Your task to perform on an android device: Go to location settings Image 0: 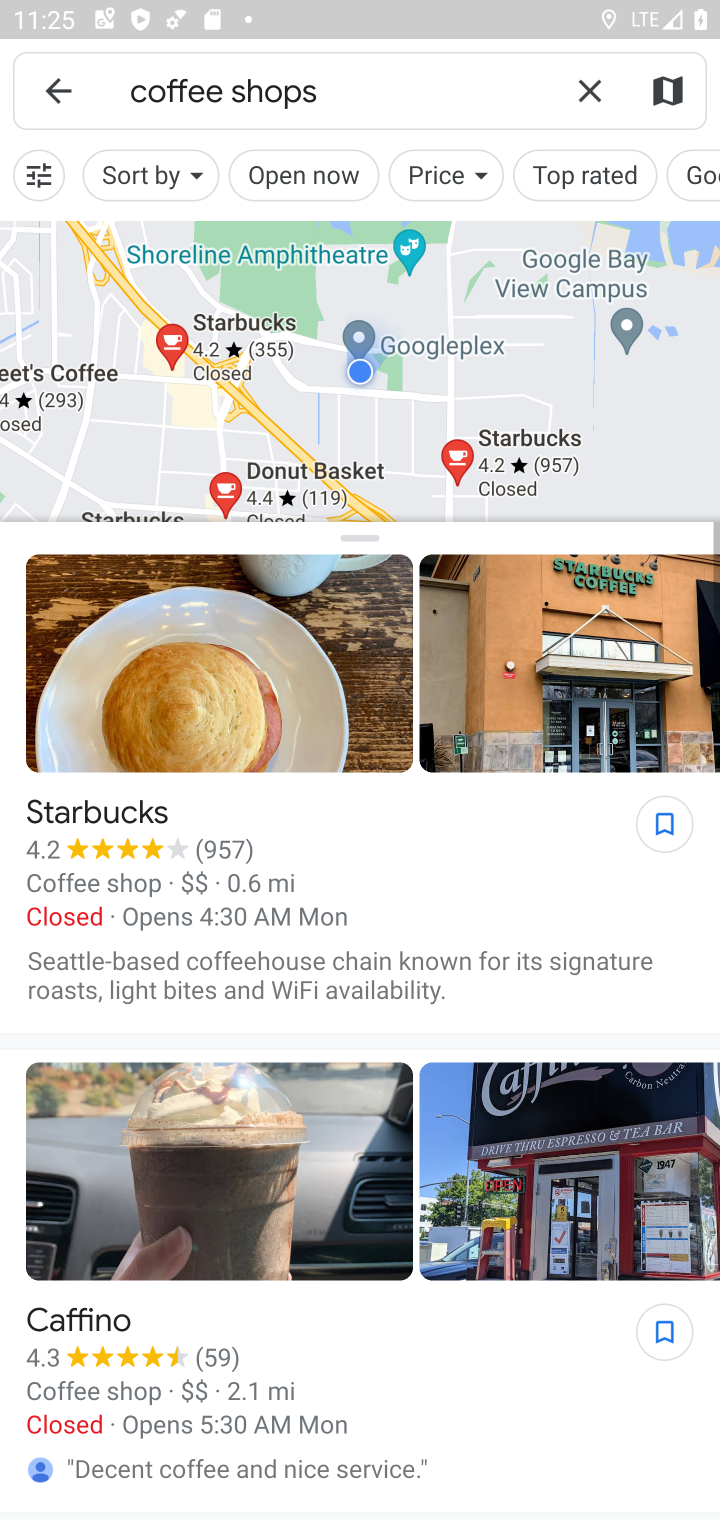
Step 0: press back button
Your task to perform on an android device: Go to location settings Image 1: 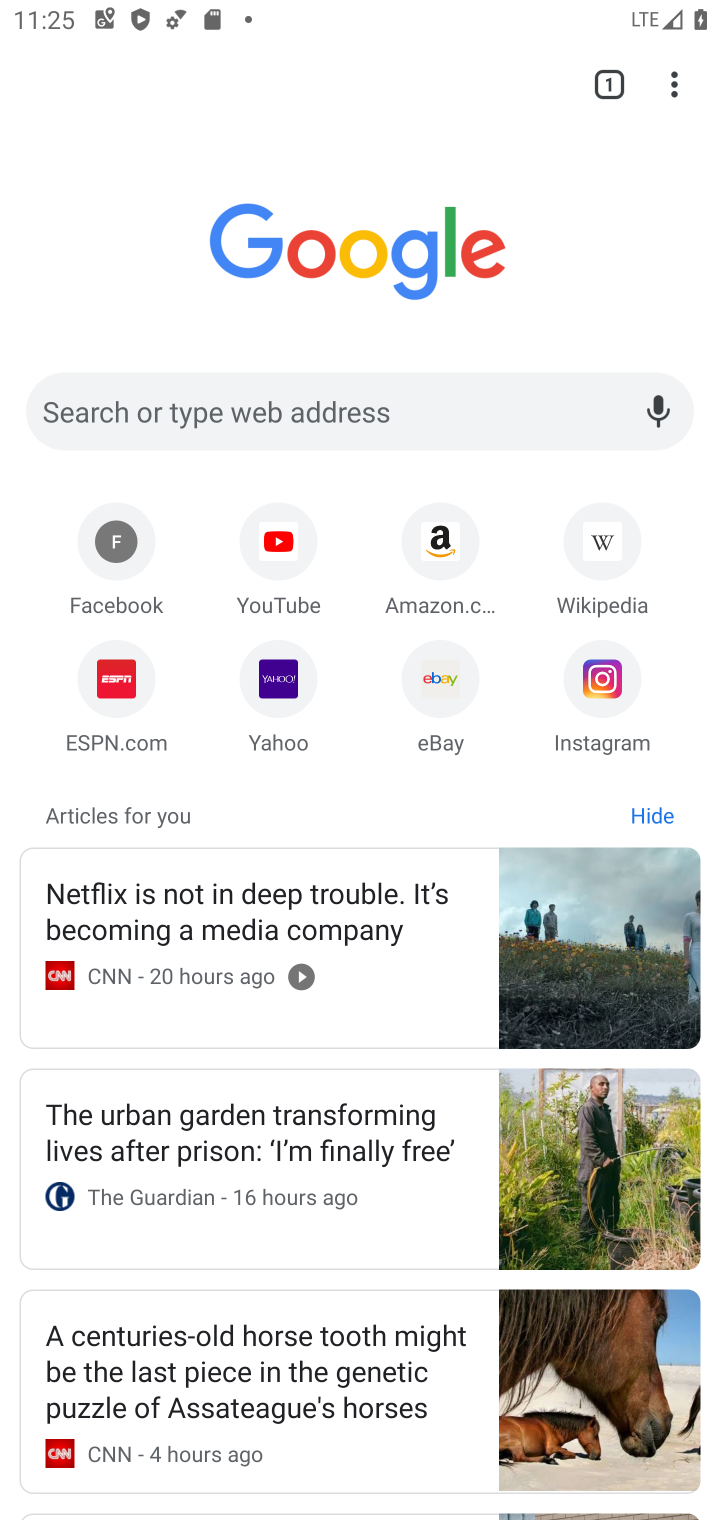
Step 1: press back button
Your task to perform on an android device: Go to location settings Image 2: 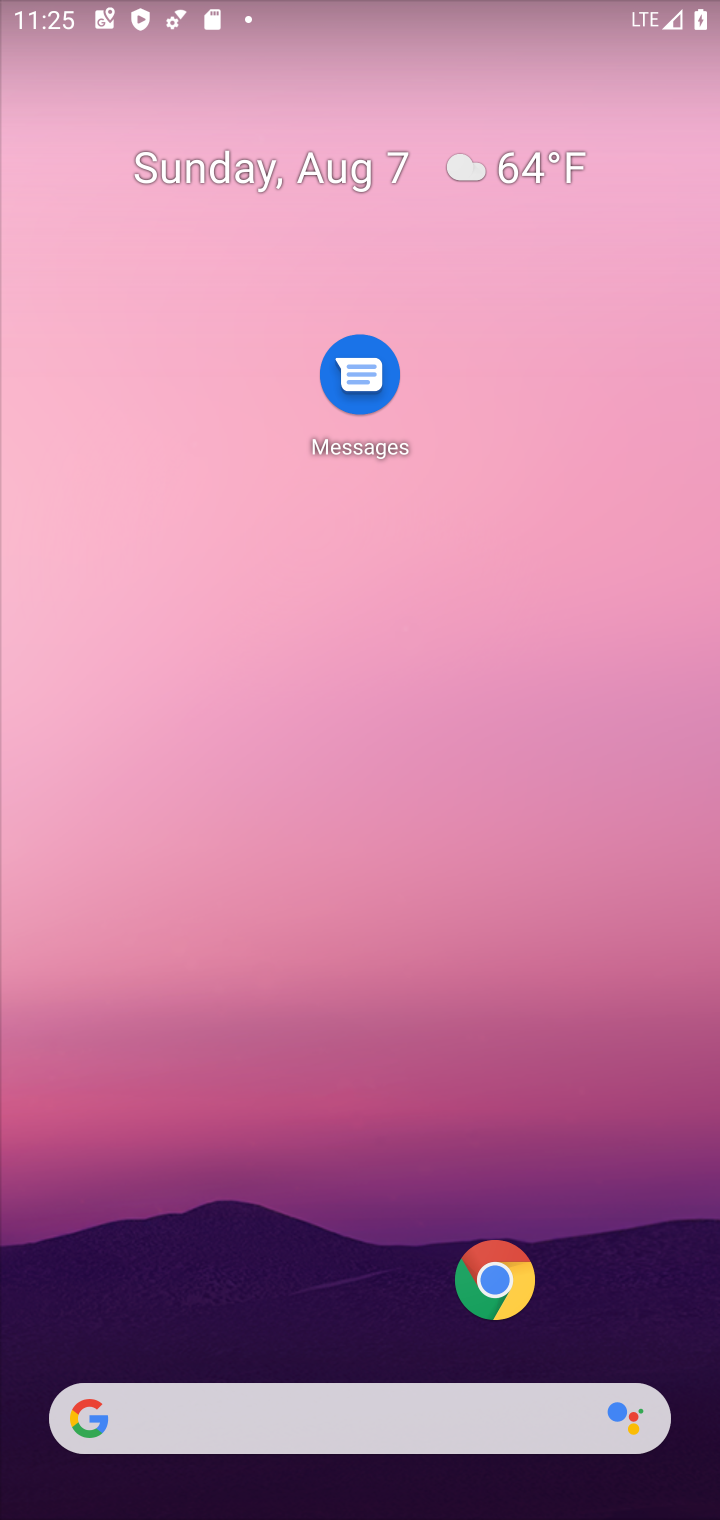
Step 2: press back button
Your task to perform on an android device: Go to location settings Image 3: 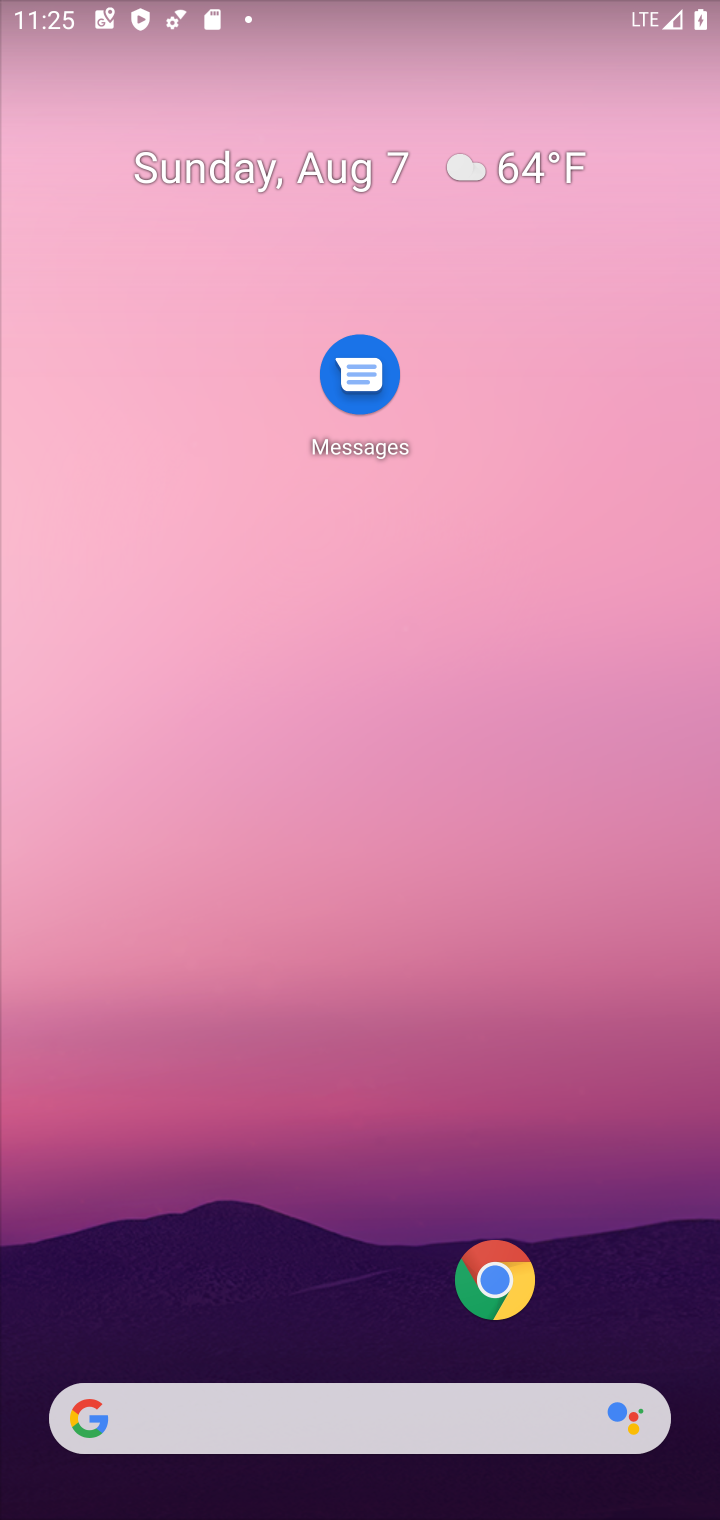
Step 3: drag from (421, 1032) to (486, 147)
Your task to perform on an android device: Go to location settings Image 4: 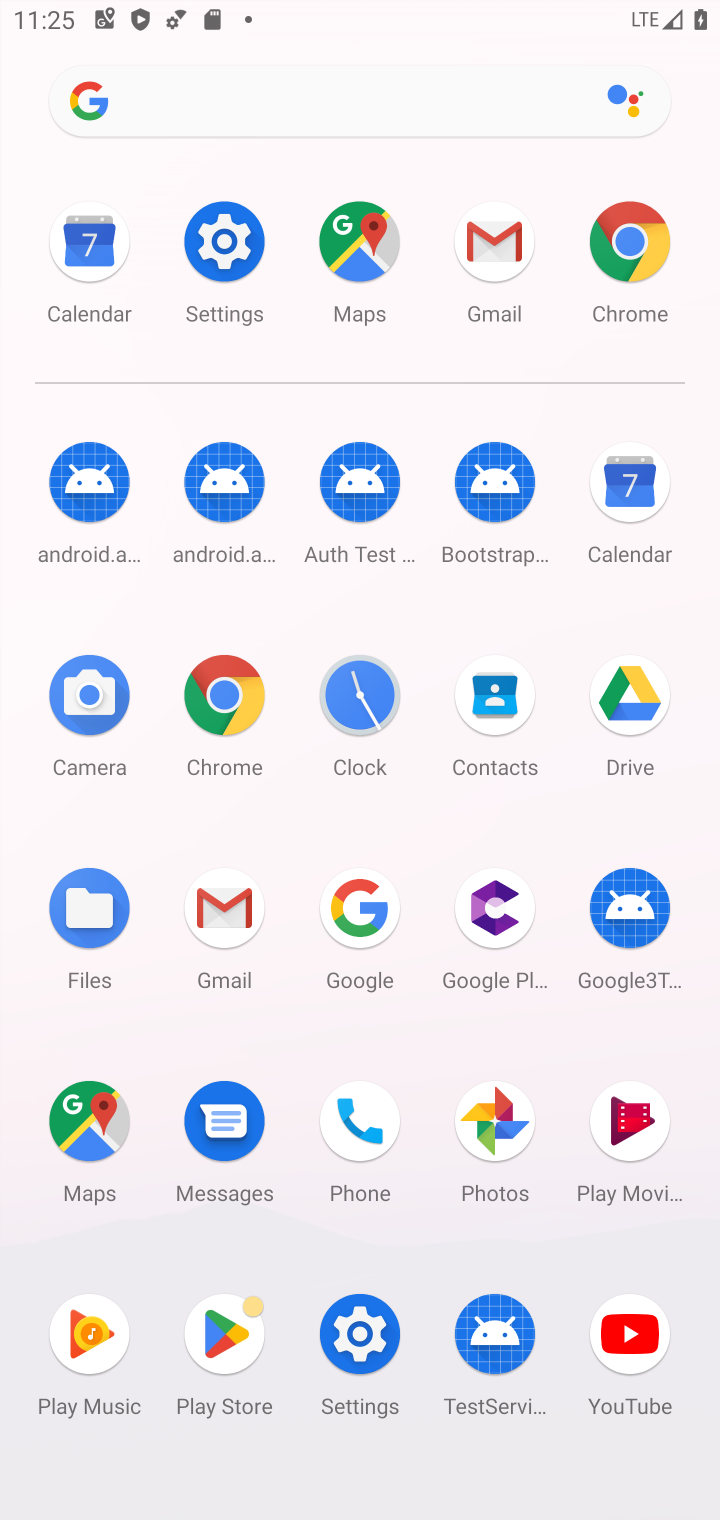
Step 4: click (206, 261)
Your task to perform on an android device: Go to location settings Image 5: 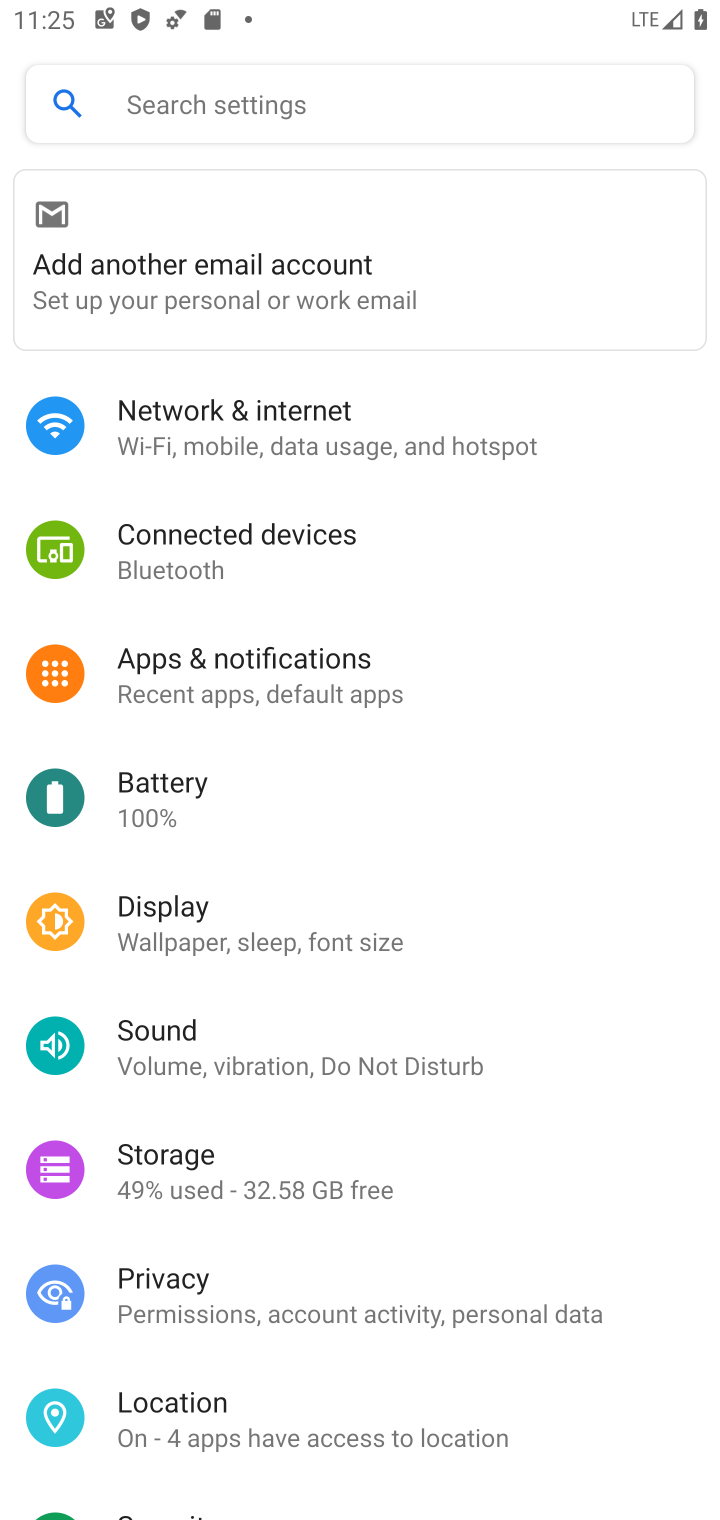
Step 5: click (185, 1425)
Your task to perform on an android device: Go to location settings Image 6: 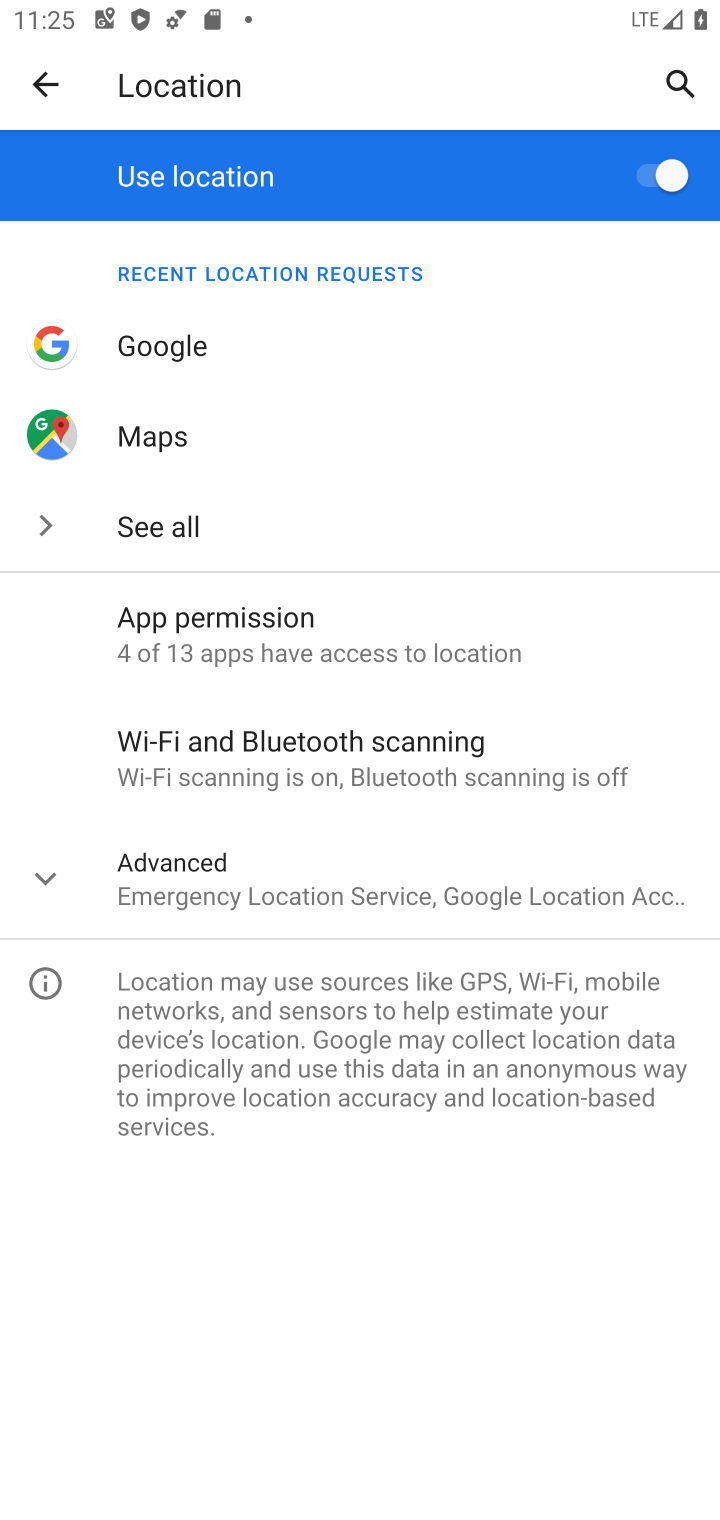
Step 6: task complete